Your task to perform on an android device: star an email in the gmail app Image 0: 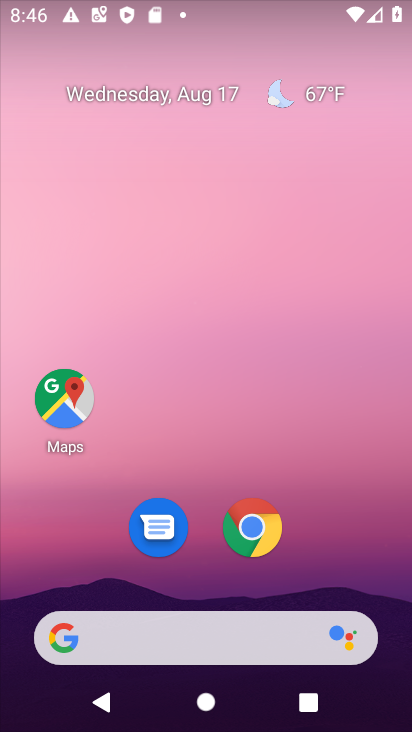
Step 0: drag from (202, 580) to (136, 37)
Your task to perform on an android device: star an email in the gmail app Image 1: 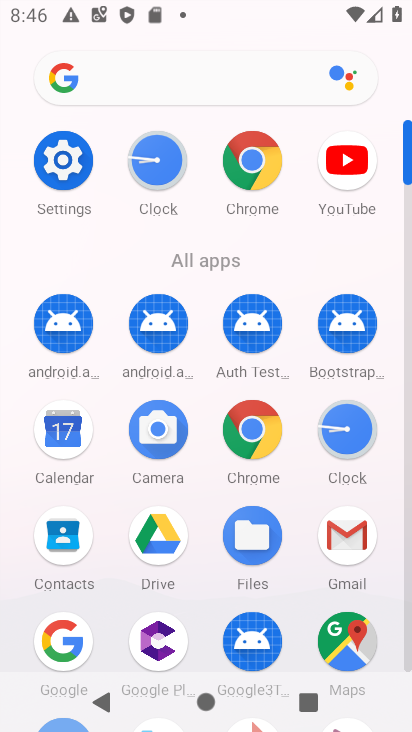
Step 1: click (357, 519)
Your task to perform on an android device: star an email in the gmail app Image 2: 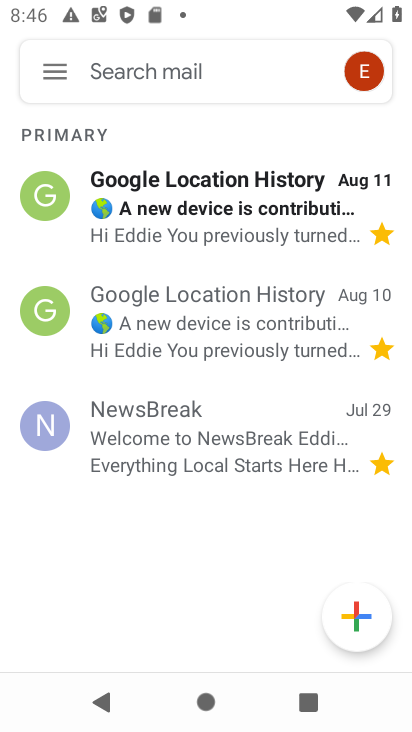
Step 2: task complete